Your task to perform on an android device: Open location settings Image 0: 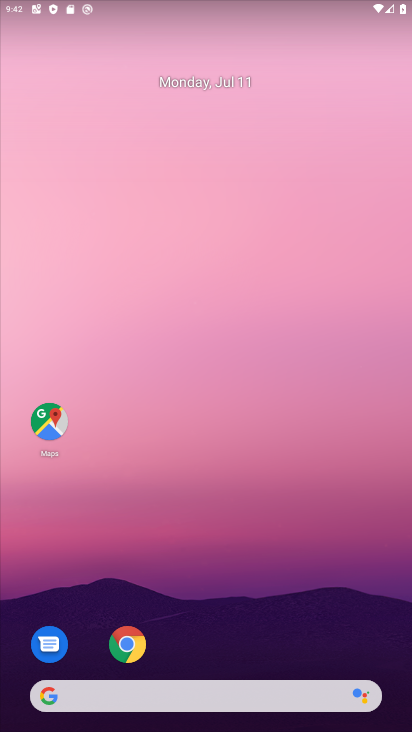
Step 0: drag from (206, 606) to (203, 182)
Your task to perform on an android device: Open location settings Image 1: 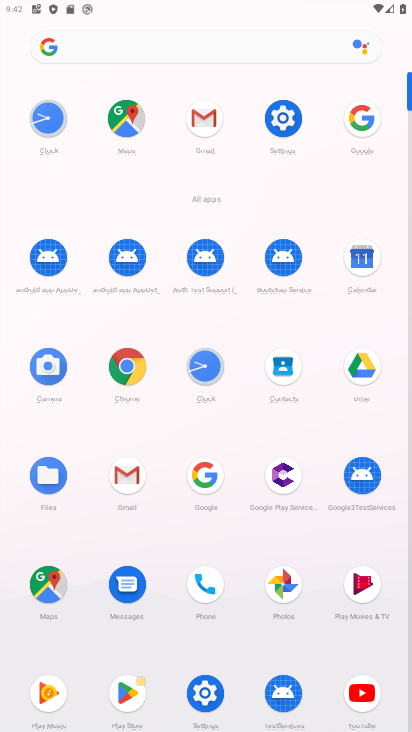
Step 1: click (284, 122)
Your task to perform on an android device: Open location settings Image 2: 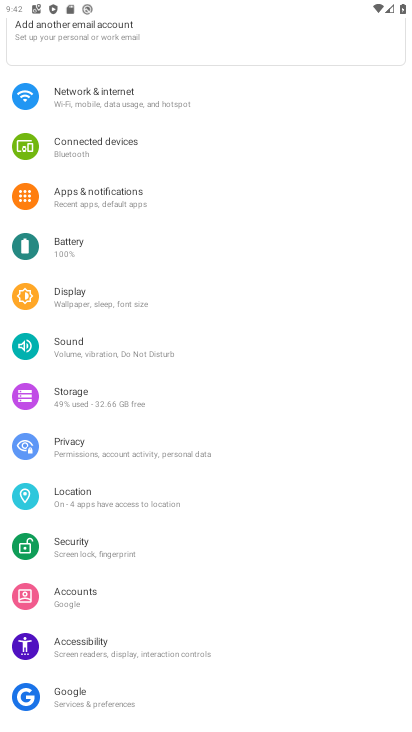
Step 2: click (97, 500)
Your task to perform on an android device: Open location settings Image 3: 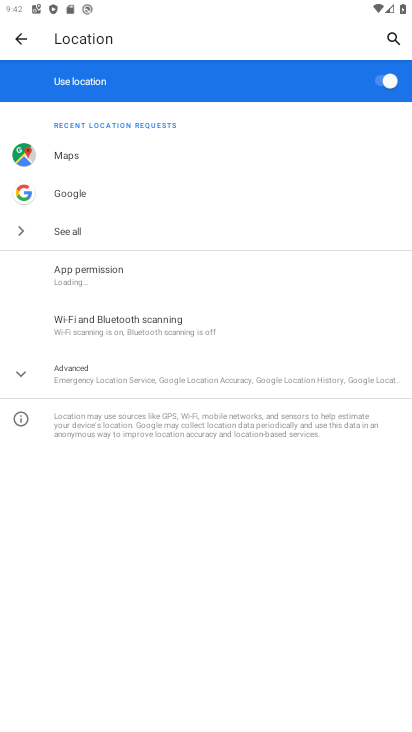
Step 3: task complete